Your task to perform on an android device: find photos in the google photos app Image 0: 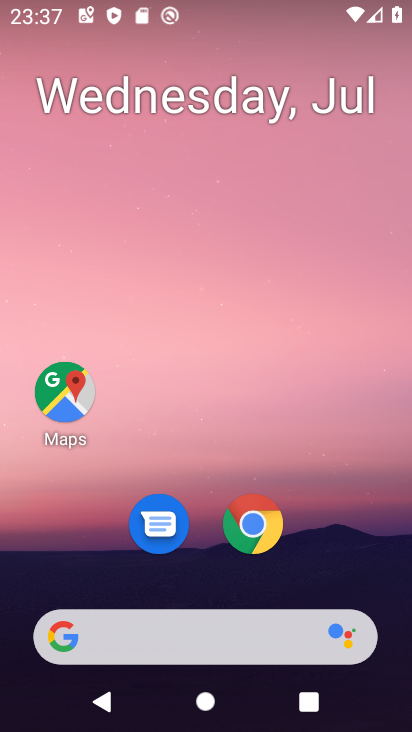
Step 0: press home button
Your task to perform on an android device: find photos in the google photos app Image 1: 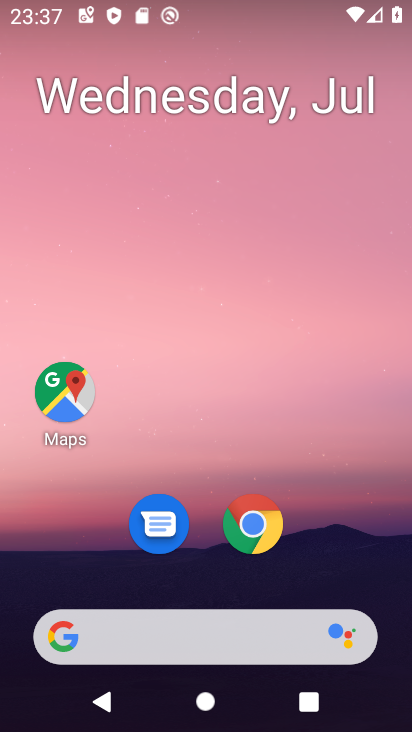
Step 1: drag from (185, 634) to (370, 55)
Your task to perform on an android device: find photos in the google photos app Image 2: 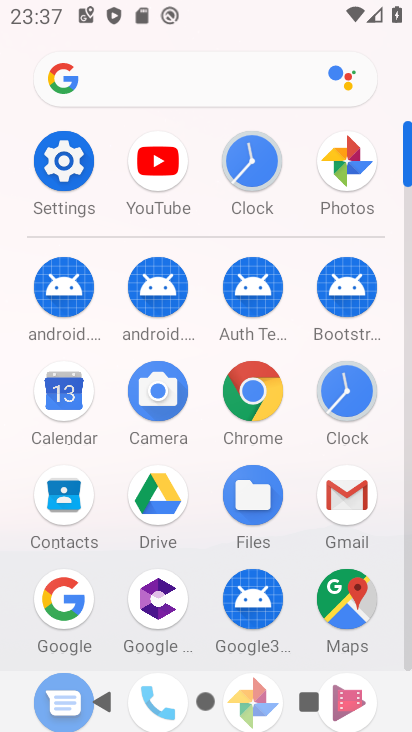
Step 2: click (352, 162)
Your task to perform on an android device: find photos in the google photos app Image 3: 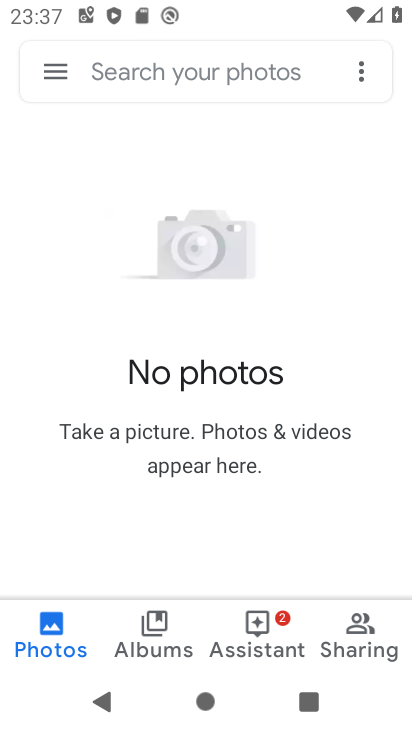
Step 3: task complete